Your task to perform on an android device: make emails show in primary in the gmail app Image 0: 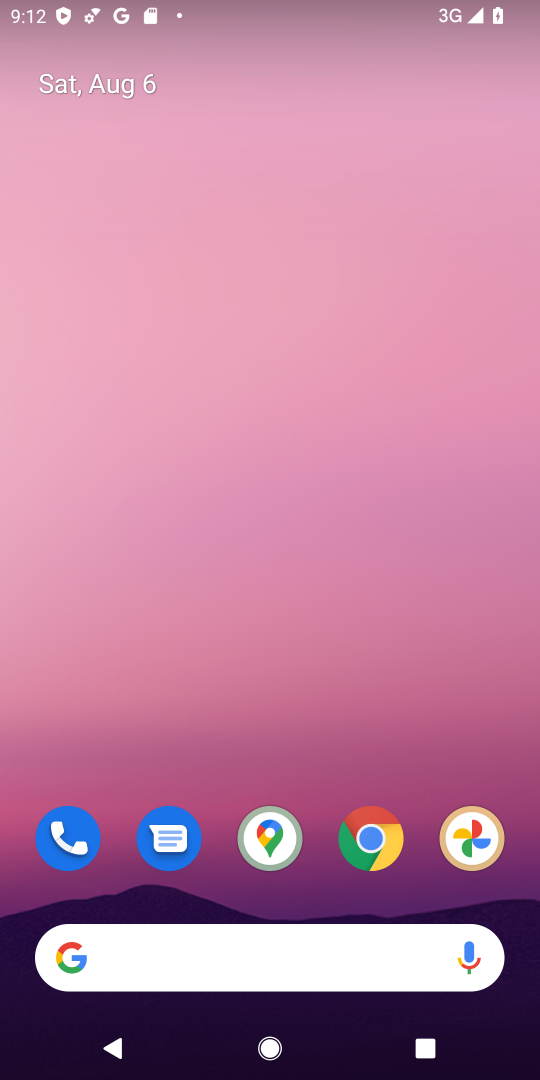
Step 0: drag from (313, 796) to (356, 99)
Your task to perform on an android device: make emails show in primary in the gmail app Image 1: 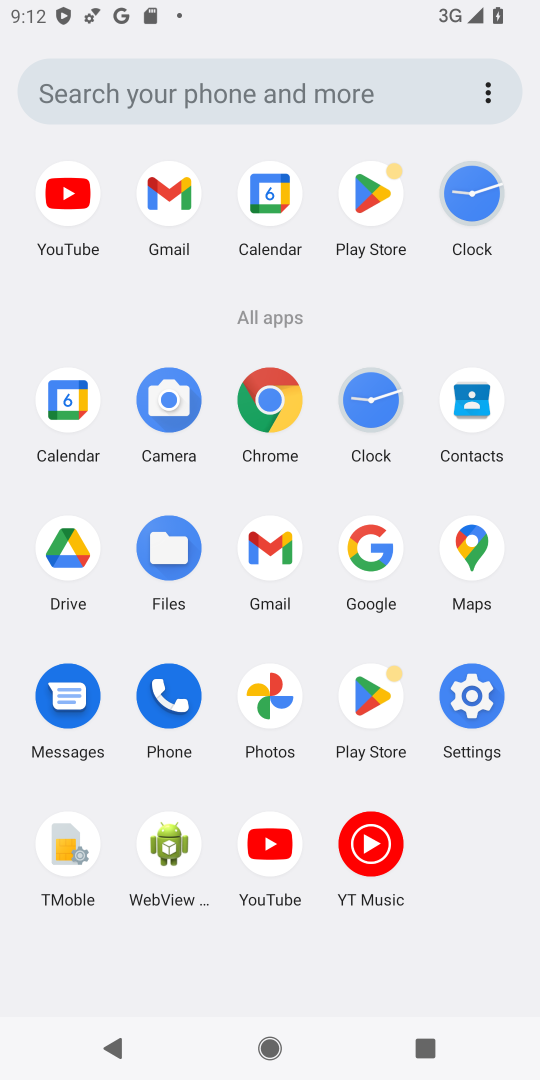
Step 1: click (267, 558)
Your task to perform on an android device: make emails show in primary in the gmail app Image 2: 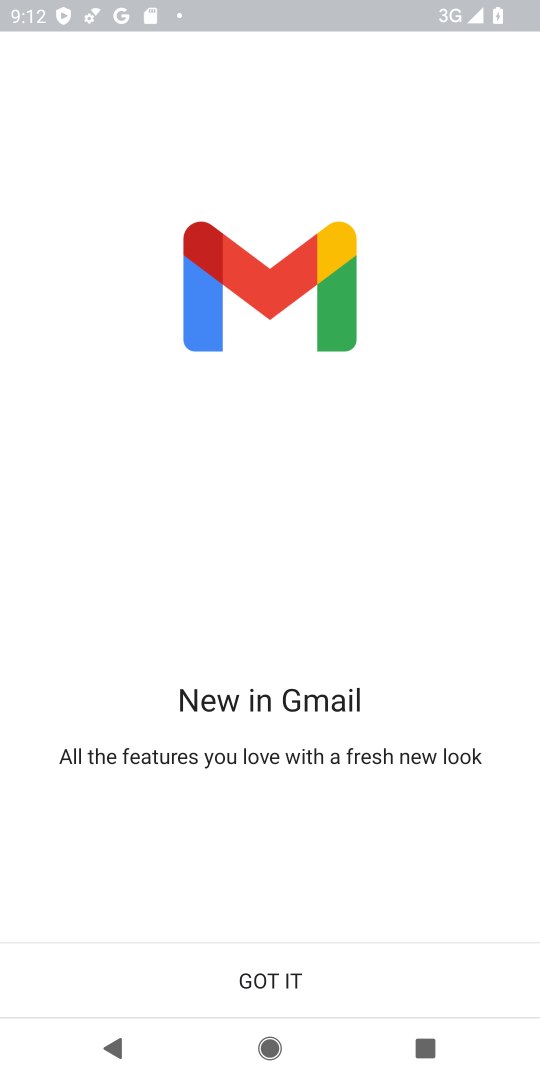
Step 2: click (338, 952)
Your task to perform on an android device: make emails show in primary in the gmail app Image 3: 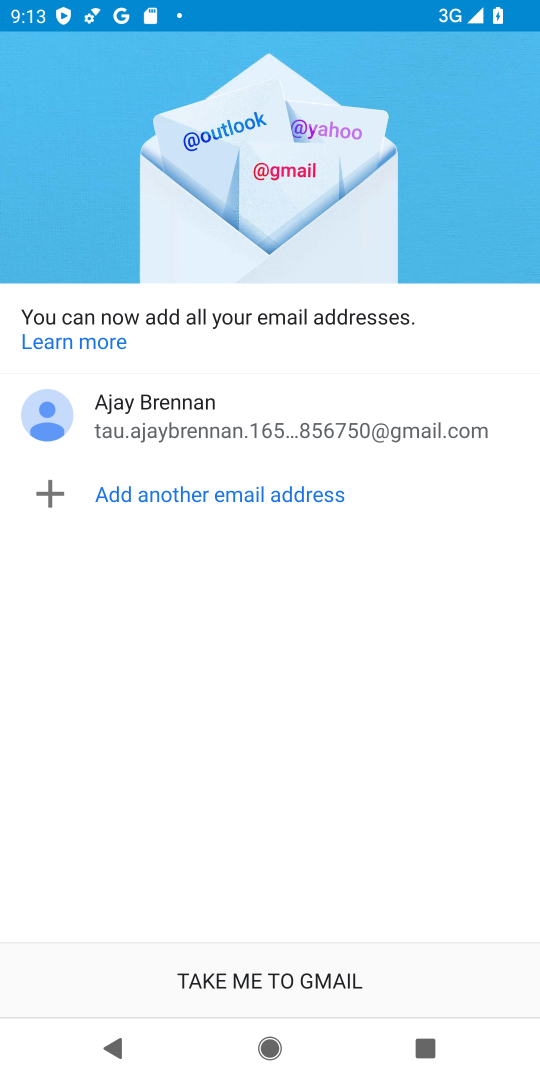
Step 3: click (244, 968)
Your task to perform on an android device: make emails show in primary in the gmail app Image 4: 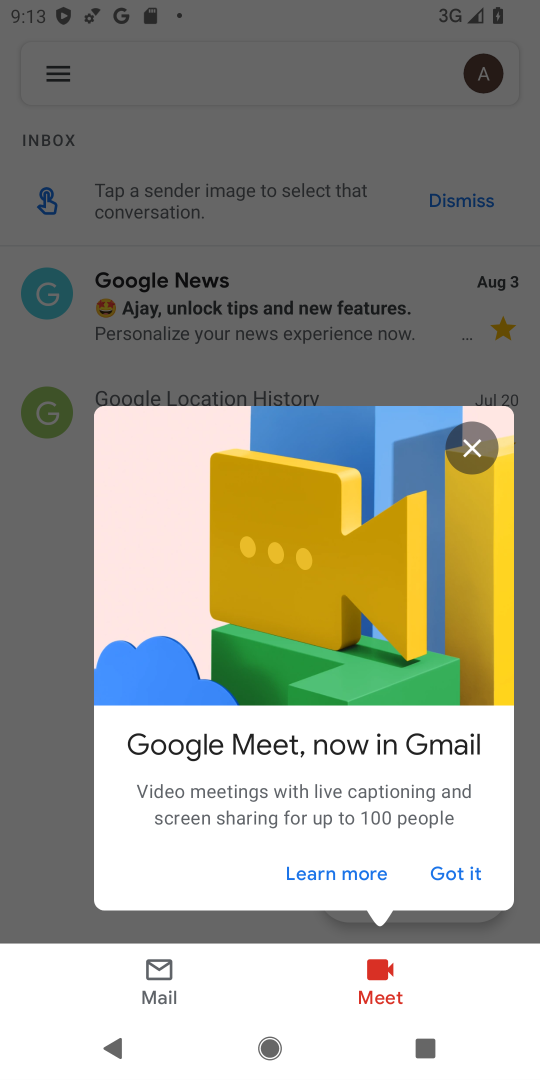
Step 4: click (475, 444)
Your task to perform on an android device: make emails show in primary in the gmail app Image 5: 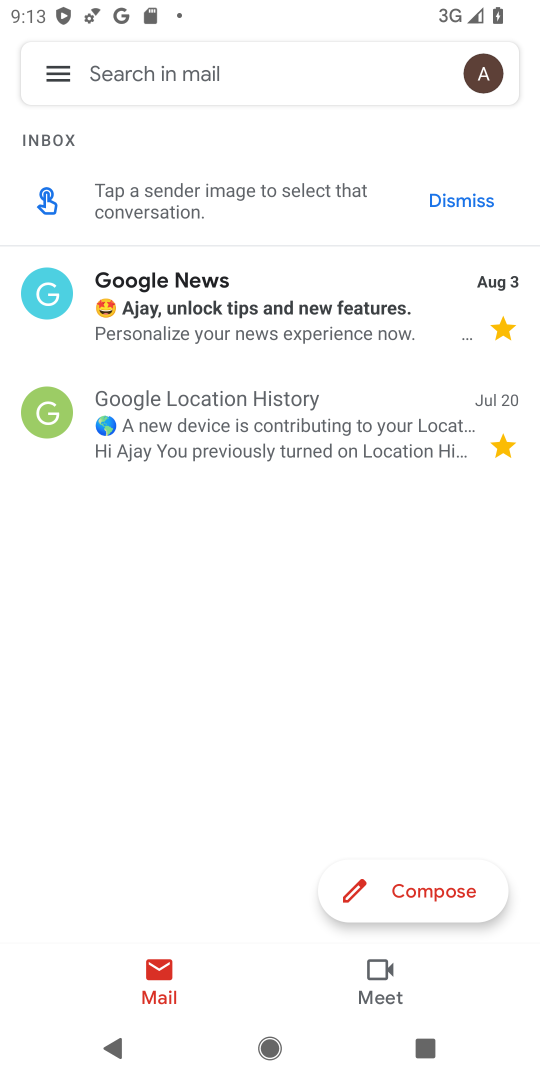
Step 5: click (55, 74)
Your task to perform on an android device: make emails show in primary in the gmail app Image 6: 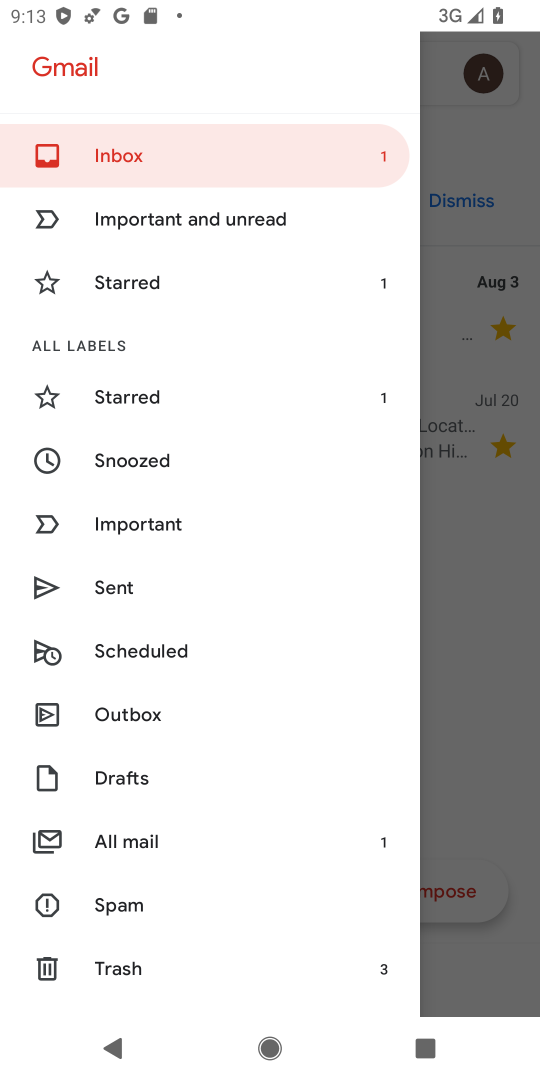
Step 6: drag from (250, 901) to (156, 393)
Your task to perform on an android device: make emails show in primary in the gmail app Image 7: 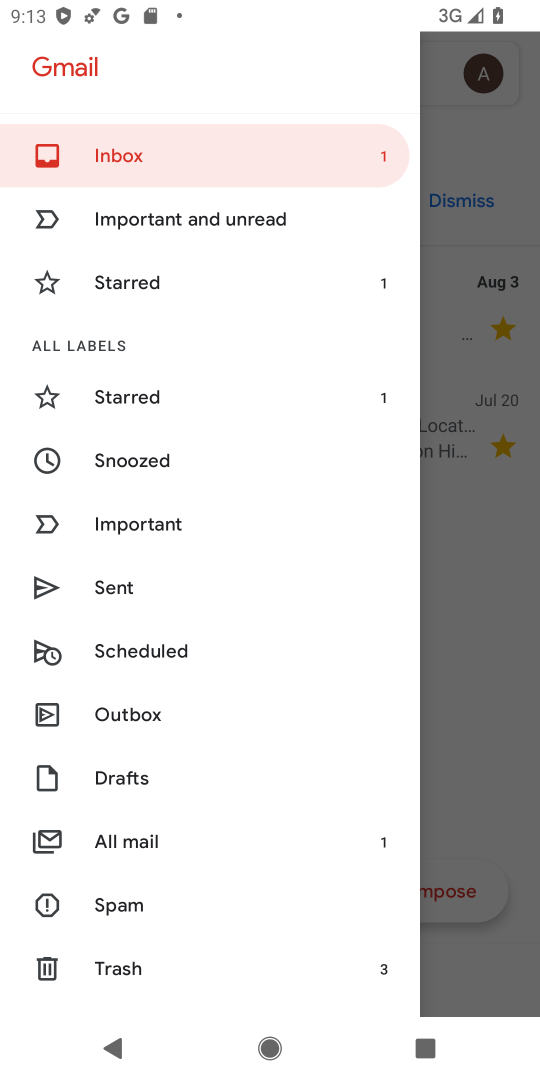
Step 7: drag from (245, 848) to (216, 477)
Your task to perform on an android device: make emails show in primary in the gmail app Image 8: 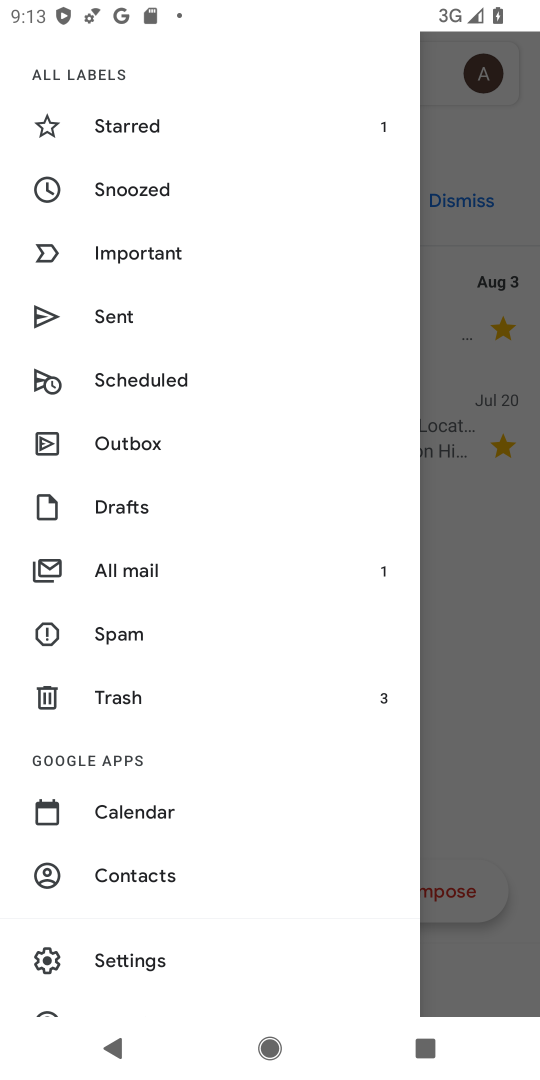
Step 8: click (147, 948)
Your task to perform on an android device: make emails show in primary in the gmail app Image 9: 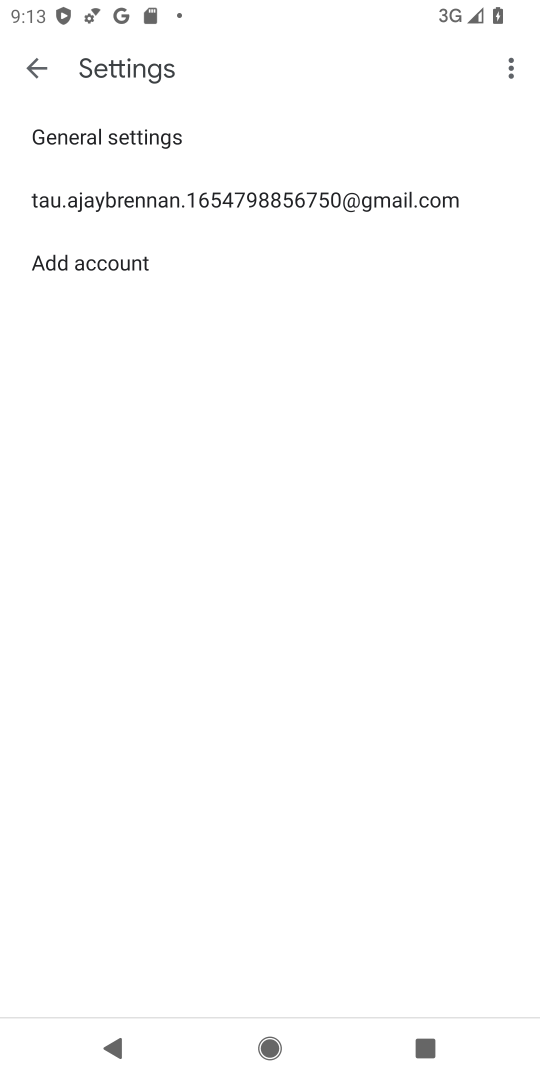
Step 9: click (155, 205)
Your task to perform on an android device: make emails show in primary in the gmail app Image 10: 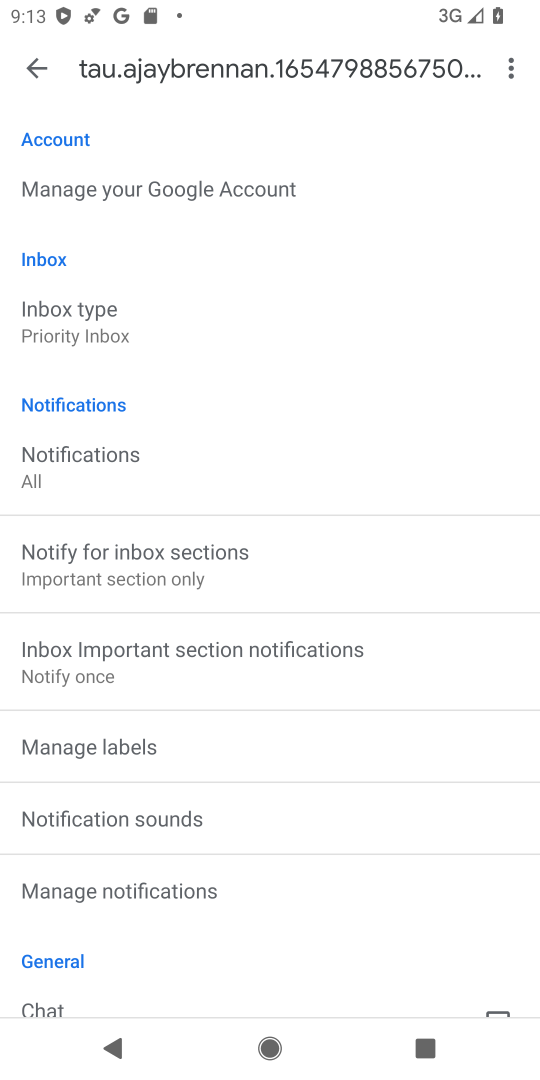
Step 10: click (184, 311)
Your task to perform on an android device: make emails show in primary in the gmail app Image 11: 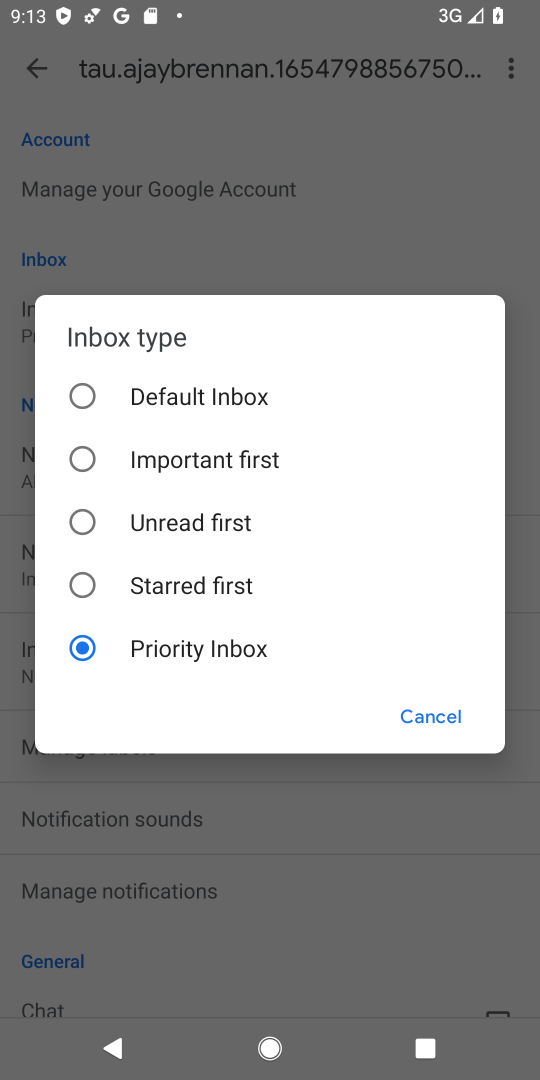
Step 11: click (158, 399)
Your task to perform on an android device: make emails show in primary in the gmail app Image 12: 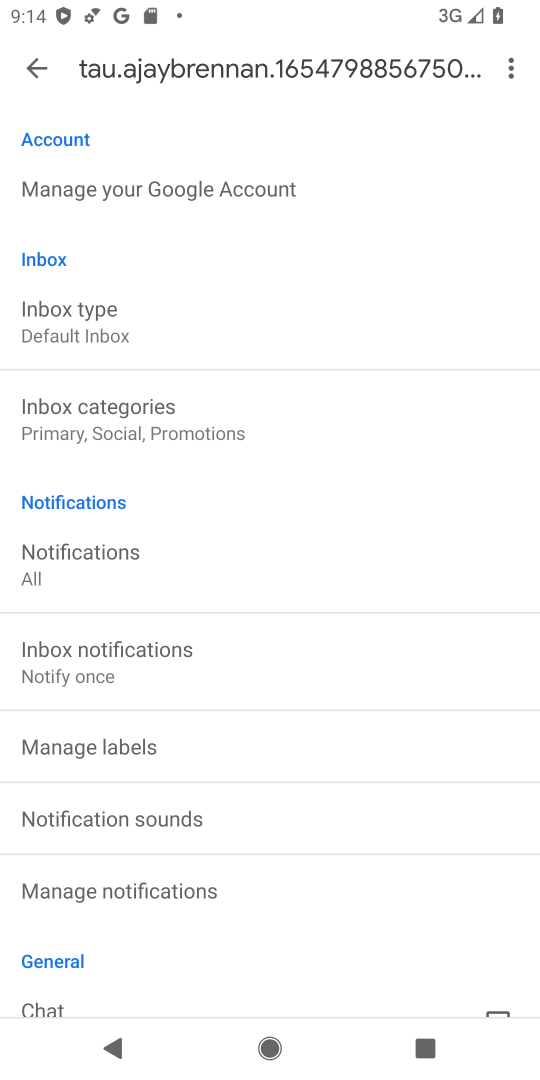
Step 12: click (148, 398)
Your task to perform on an android device: make emails show in primary in the gmail app Image 13: 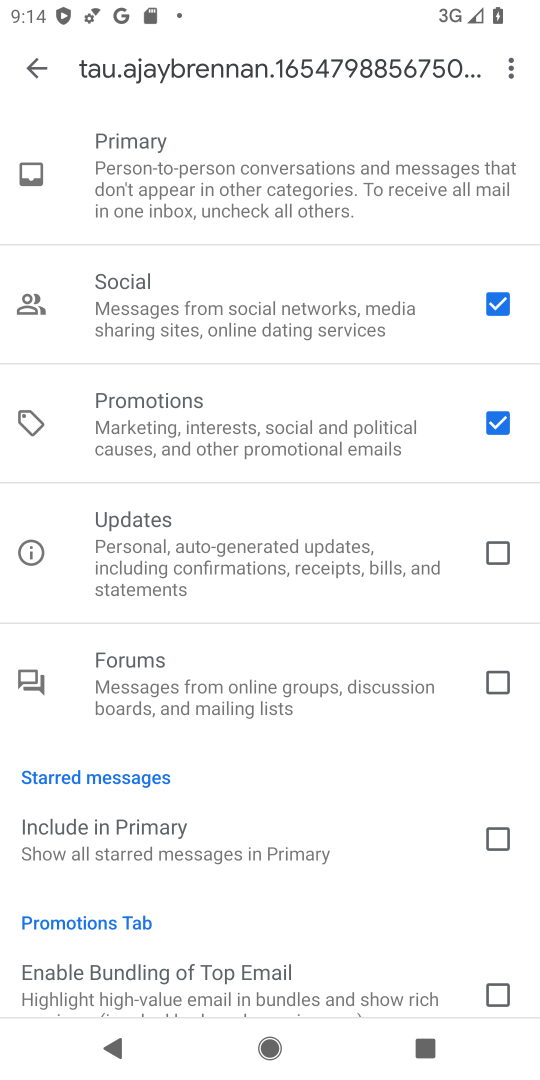
Step 13: click (493, 422)
Your task to perform on an android device: make emails show in primary in the gmail app Image 14: 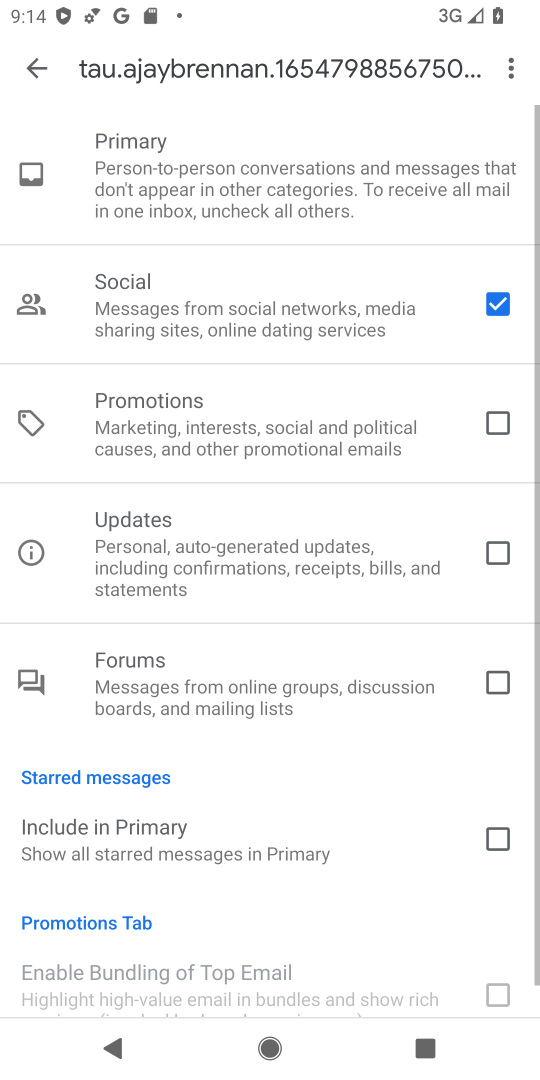
Step 14: click (503, 302)
Your task to perform on an android device: make emails show in primary in the gmail app Image 15: 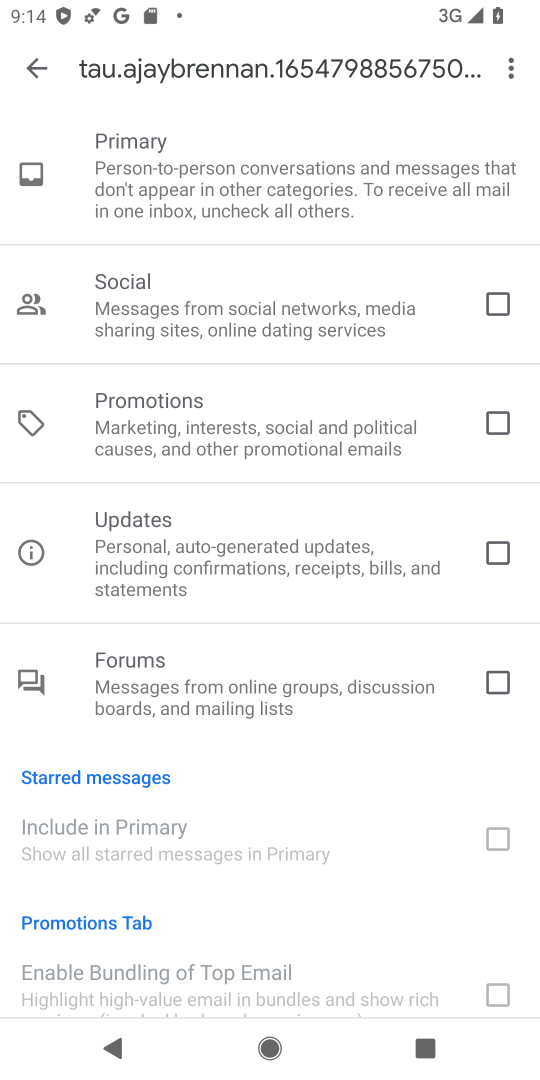
Step 15: task complete